Your task to perform on an android device: change the clock display to show seconds Image 0: 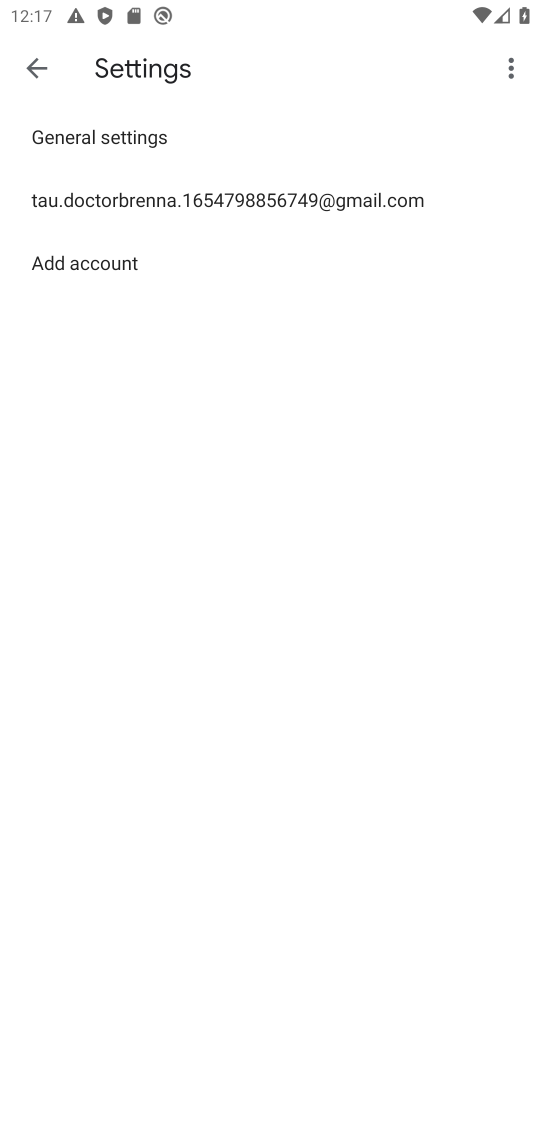
Step 0: drag from (468, 975) to (466, 817)
Your task to perform on an android device: change the clock display to show seconds Image 1: 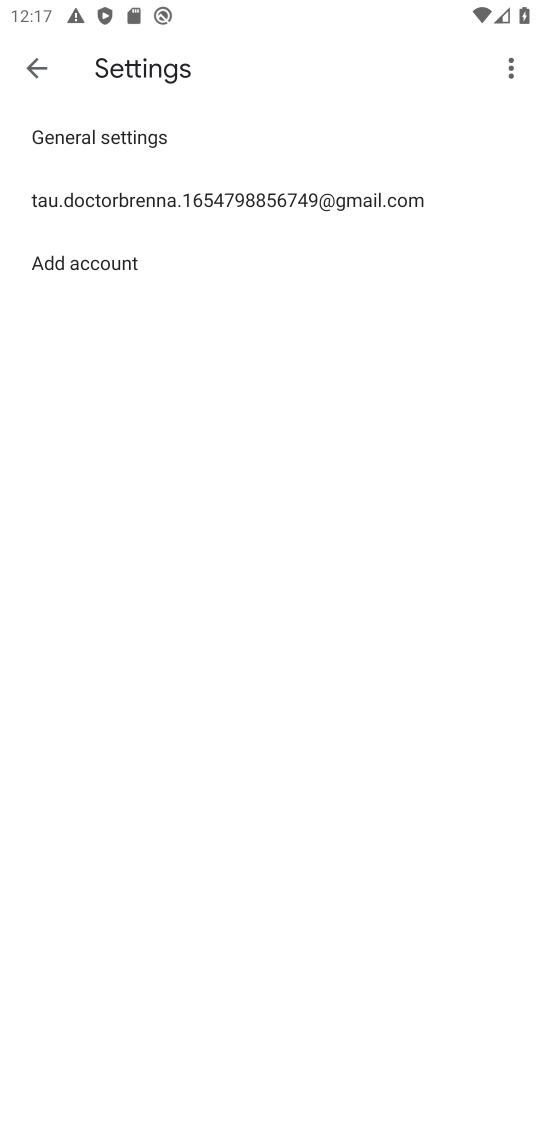
Step 1: press home button
Your task to perform on an android device: change the clock display to show seconds Image 2: 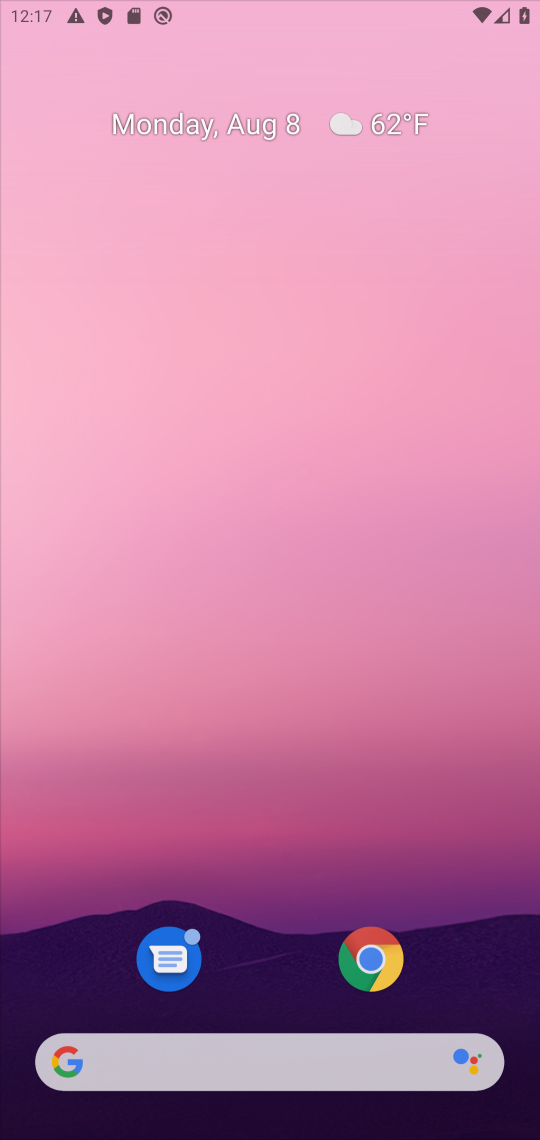
Step 2: drag from (459, 991) to (305, 189)
Your task to perform on an android device: change the clock display to show seconds Image 3: 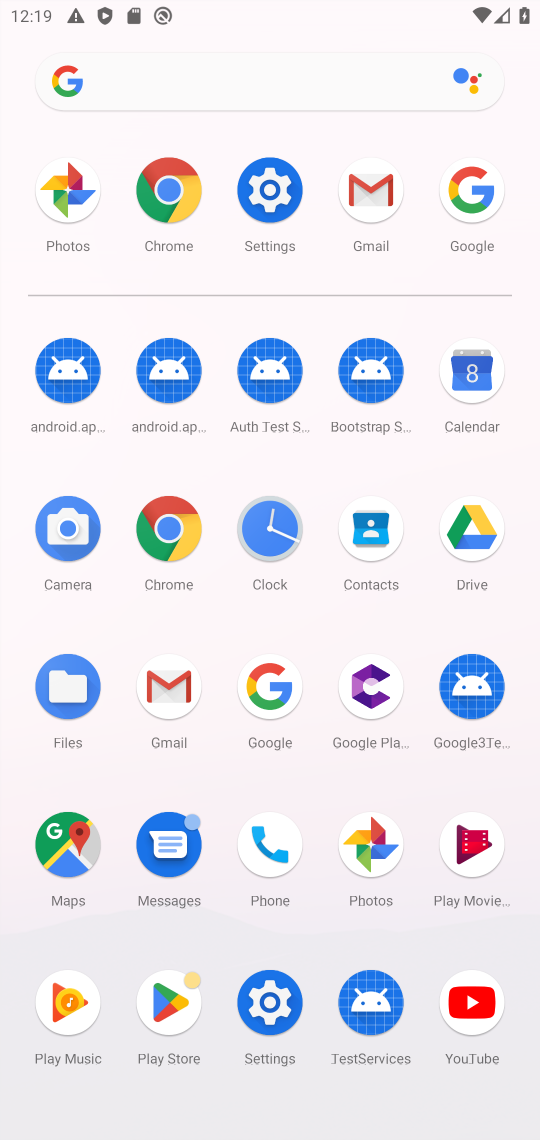
Step 3: click (258, 533)
Your task to perform on an android device: change the clock display to show seconds Image 4: 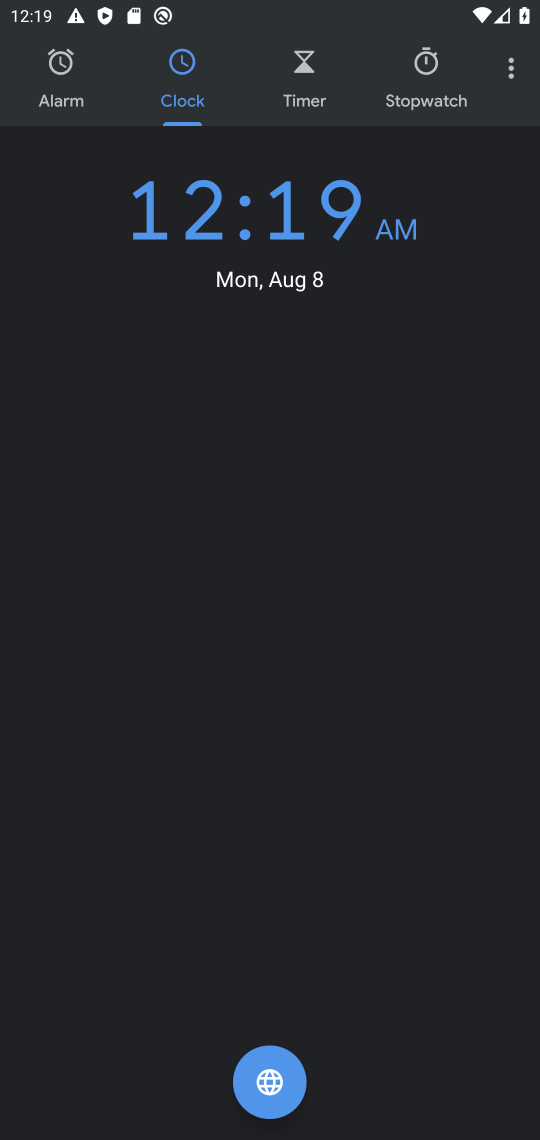
Step 4: click (507, 86)
Your task to perform on an android device: change the clock display to show seconds Image 5: 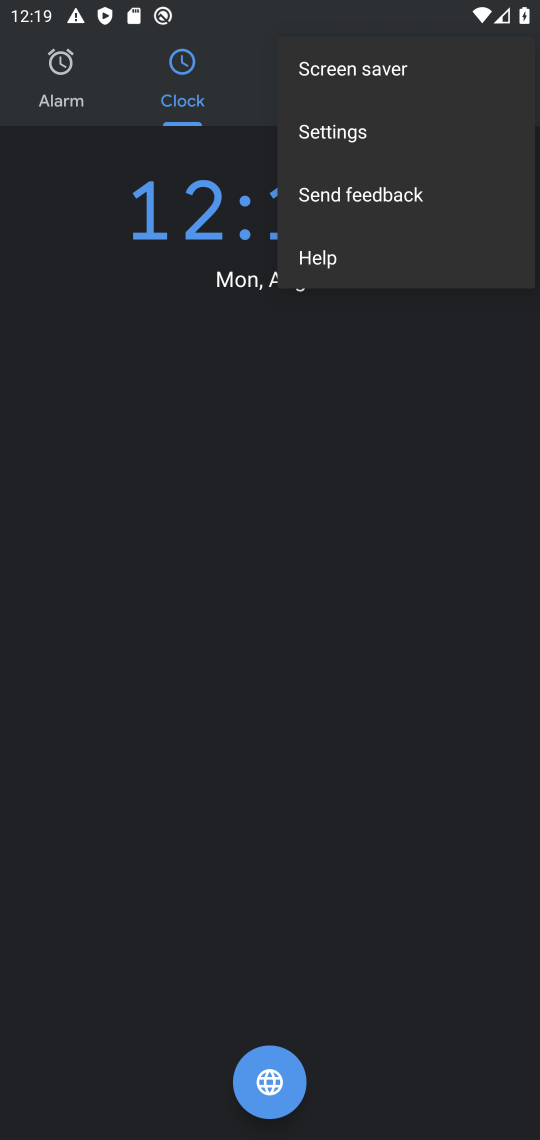
Step 5: click (352, 149)
Your task to perform on an android device: change the clock display to show seconds Image 6: 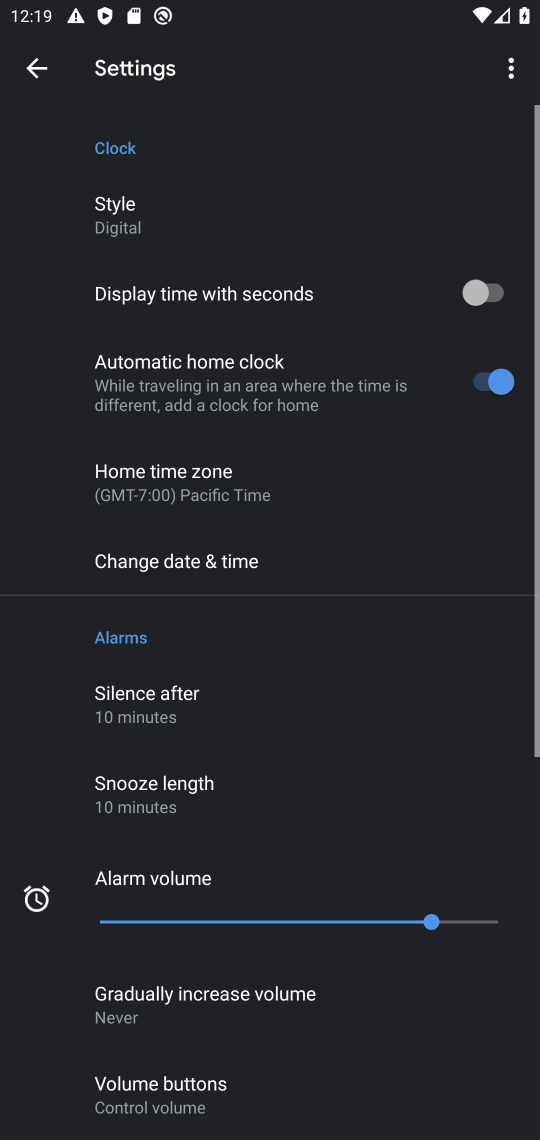
Step 6: click (490, 312)
Your task to perform on an android device: change the clock display to show seconds Image 7: 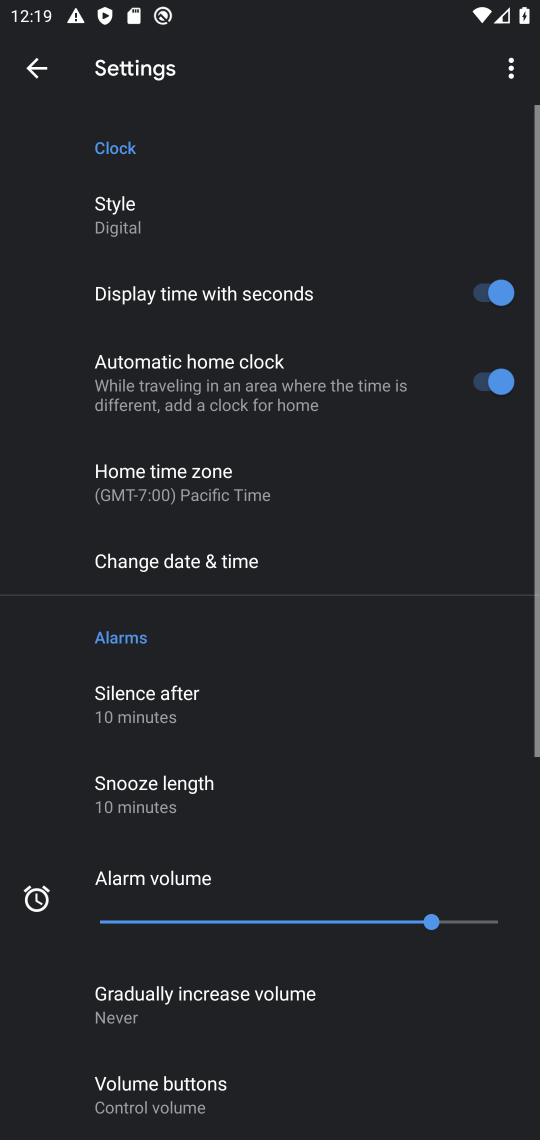
Step 7: task complete